Your task to perform on an android device: Open Google Maps Image 0: 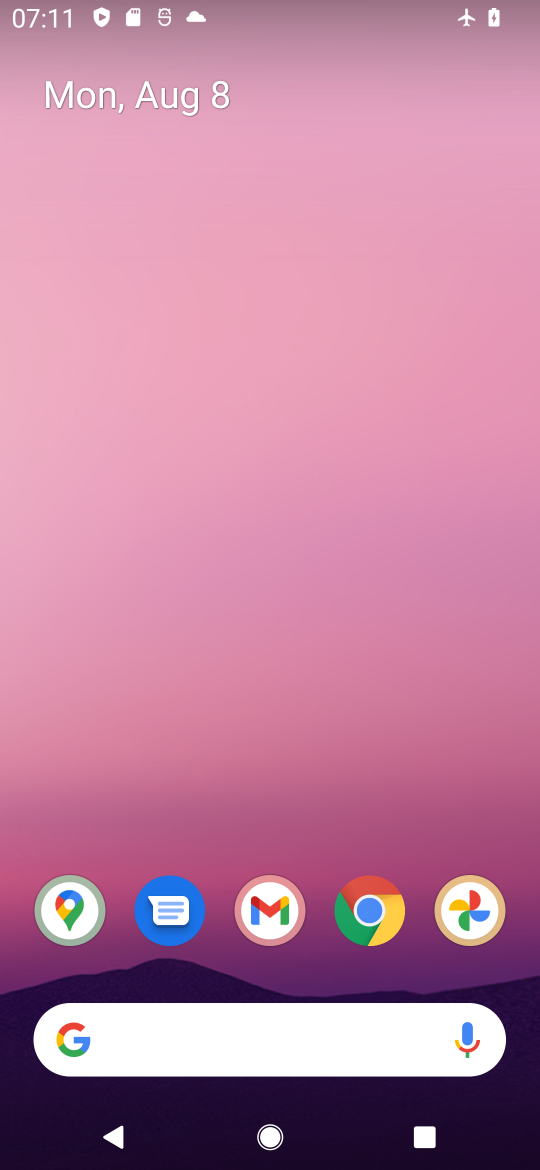
Step 0: click (66, 897)
Your task to perform on an android device: Open Google Maps Image 1: 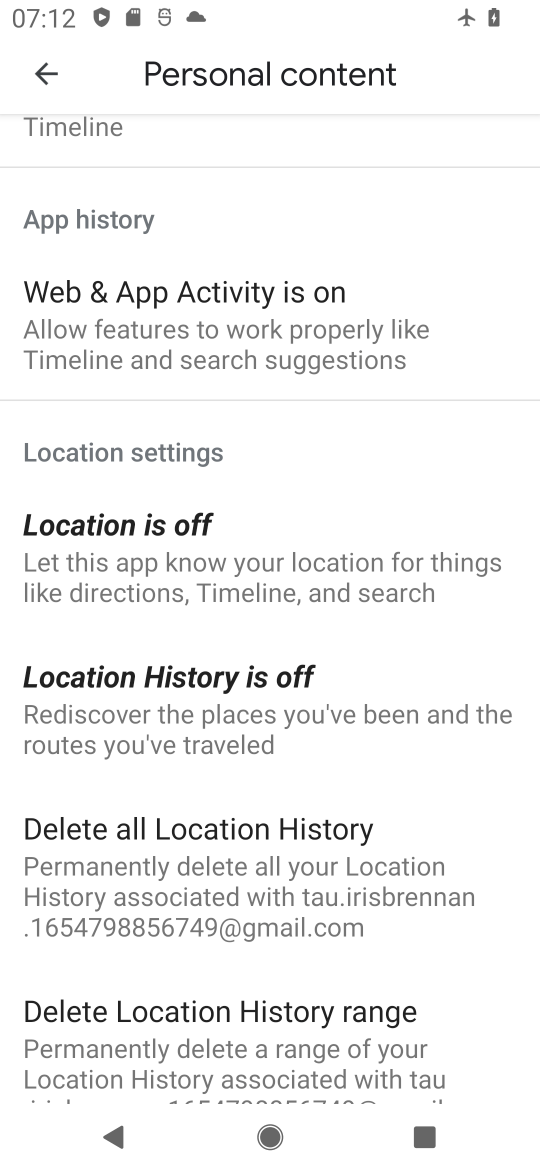
Step 1: task complete